Your task to perform on an android device: Empty the shopping cart on walmart.com. Image 0: 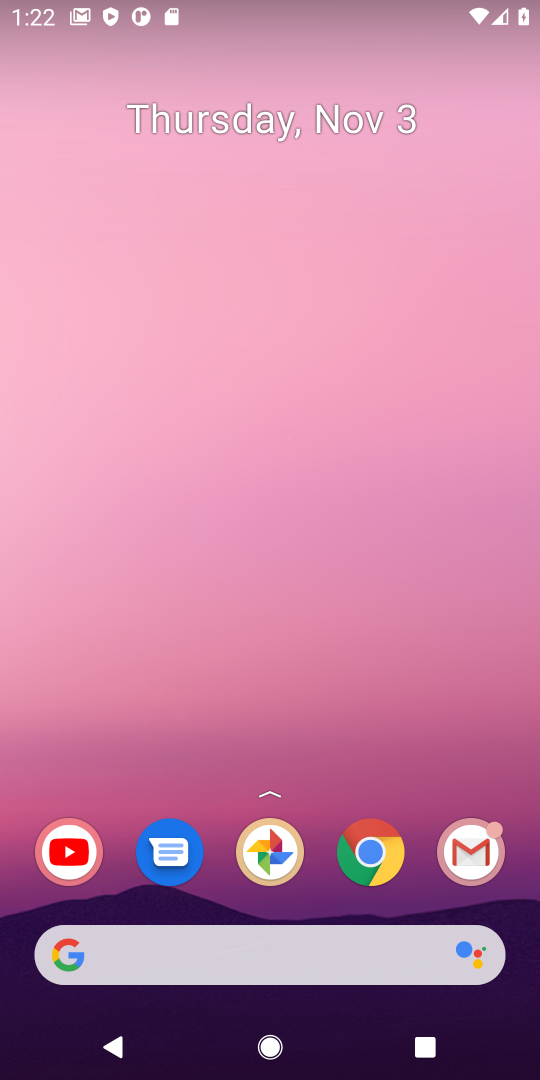
Step 0: click (379, 858)
Your task to perform on an android device: Empty the shopping cart on walmart.com. Image 1: 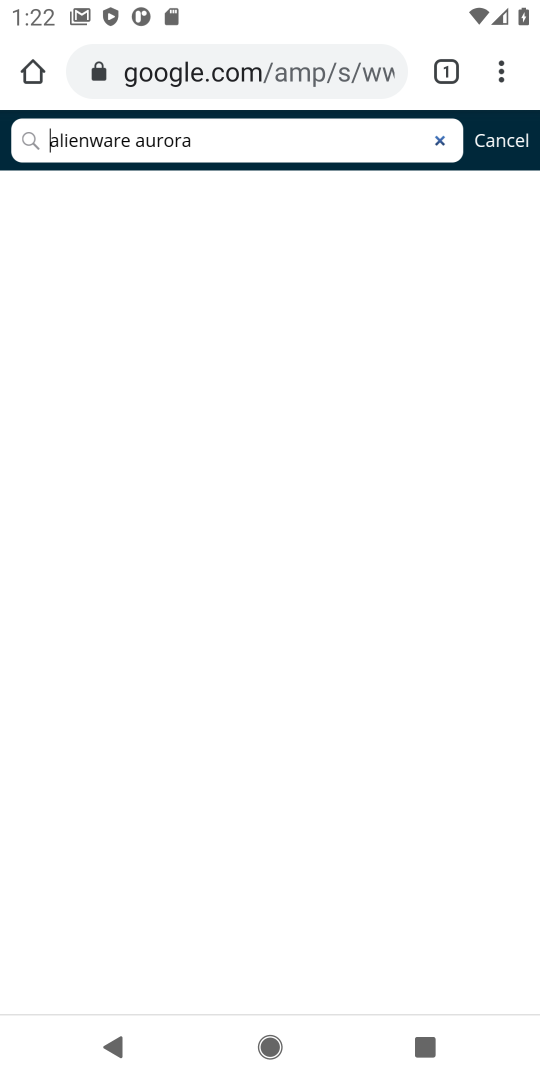
Step 1: click (244, 83)
Your task to perform on an android device: Empty the shopping cart on walmart.com. Image 2: 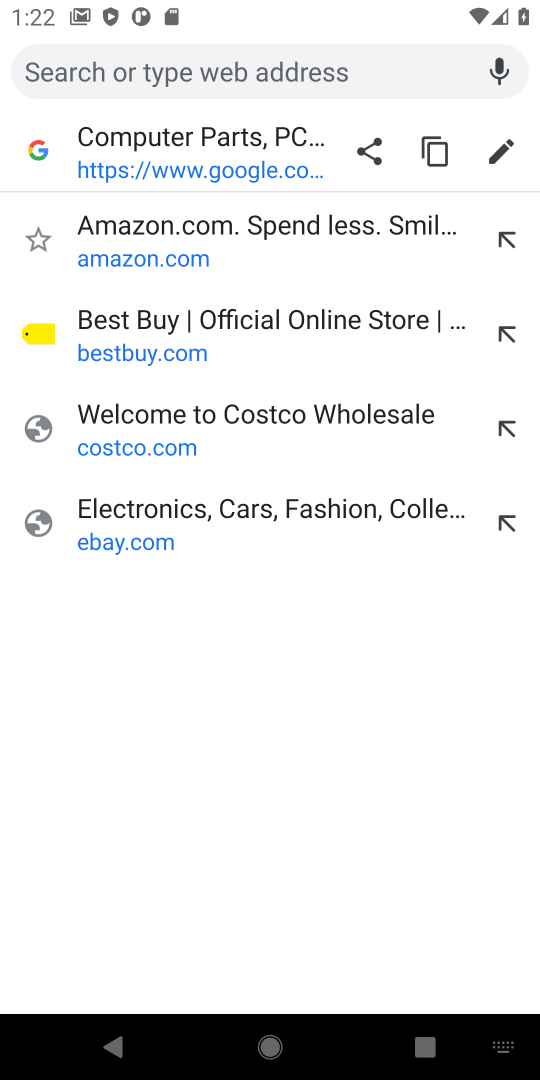
Step 2: type "walmart.com"
Your task to perform on an android device: Empty the shopping cart on walmart.com. Image 3: 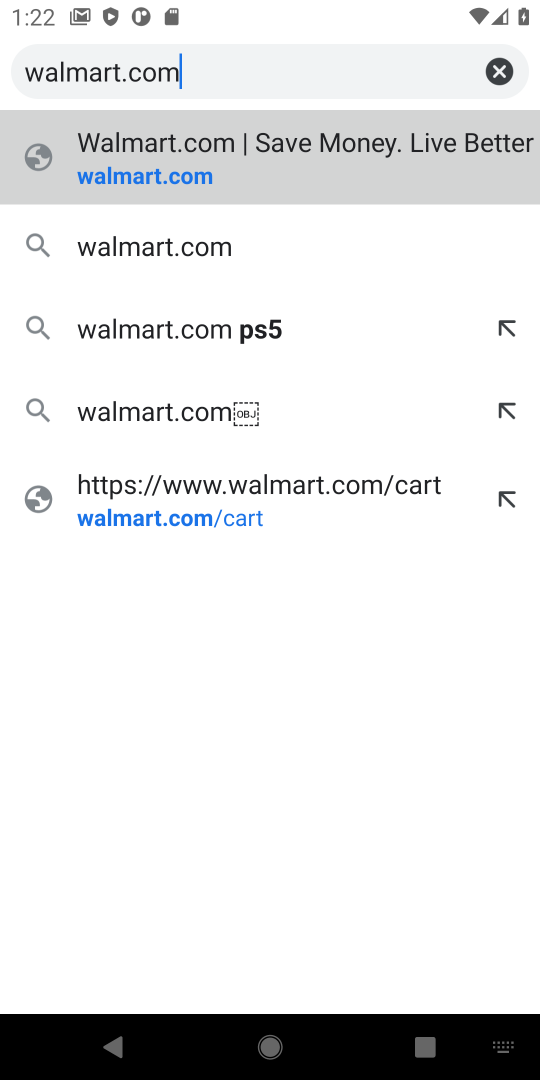
Step 3: click (131, 184)
Your task to perform on an android device: Empty the shopping cart on walmart.com. Image 4: 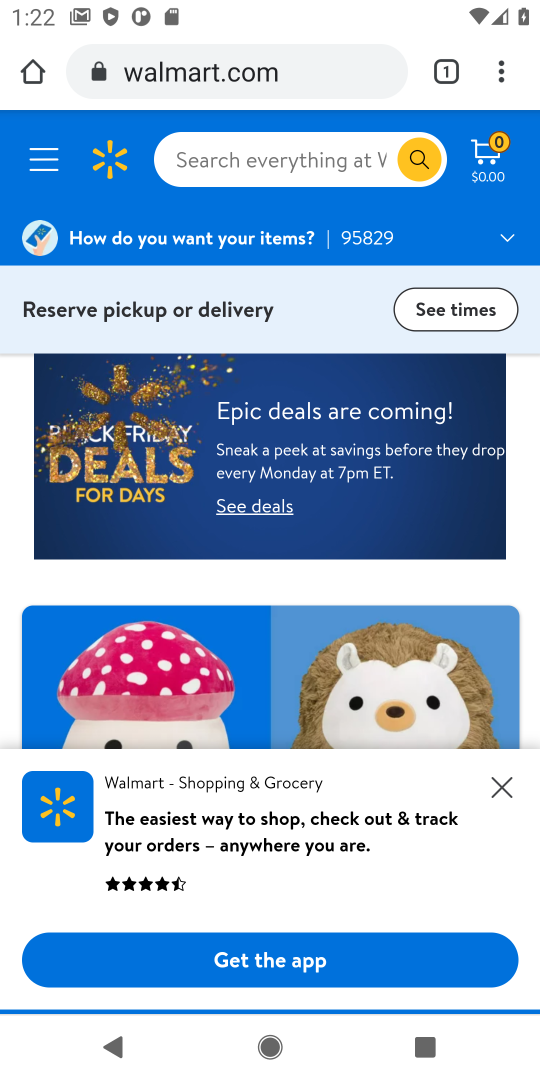
Step 4: click (489, 158)
Your task to perform on an android device: Empty the shopping cart on walmart.com. Image 5: 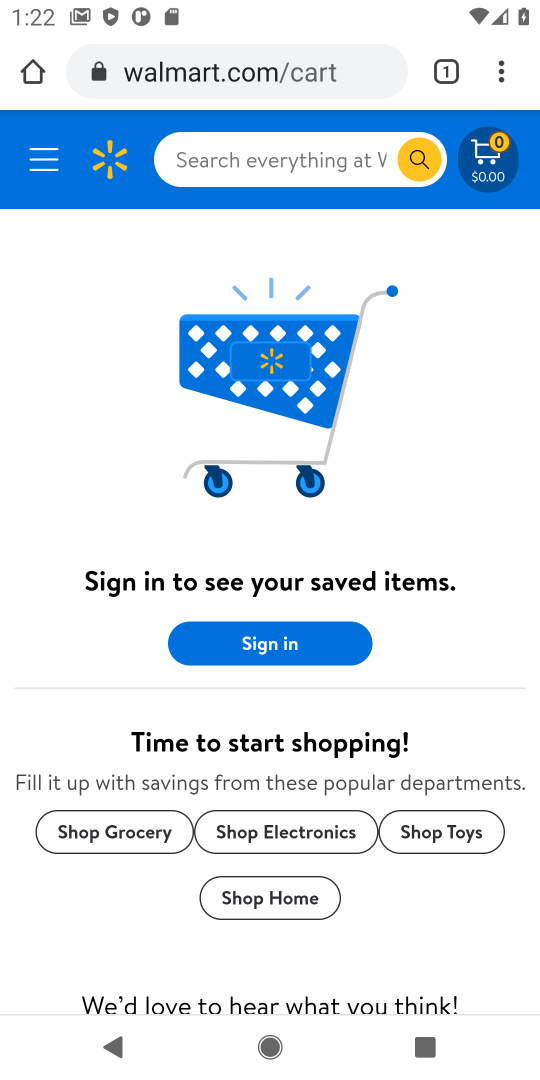
Step 5: task complete